Your task to perform on an android device: turn off improve location accuracy Image 0: 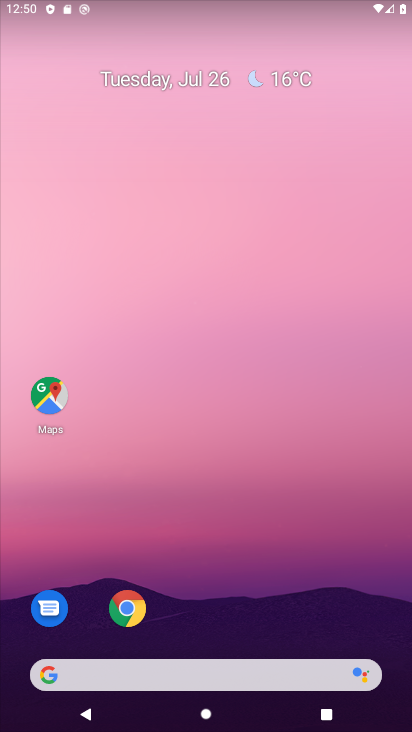
Step 0: drag from (264, 641) to (246, 93)
Your task to perform on an android device: turn off improve location accuracy Image 1: 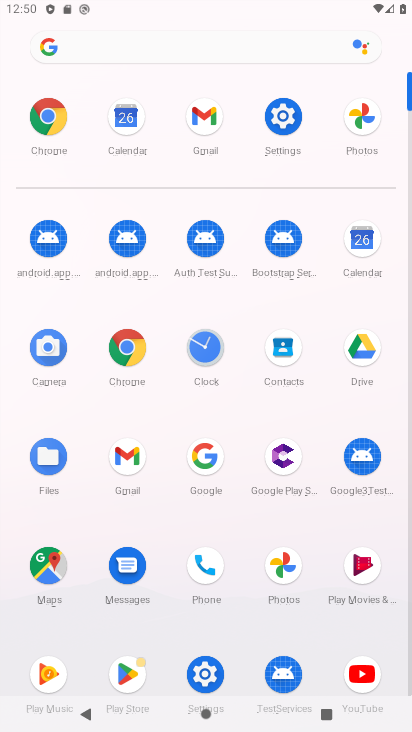
Step 1: click (279, 148)
Your task to perform on an android device: turn off improve location accuracy Image 2: 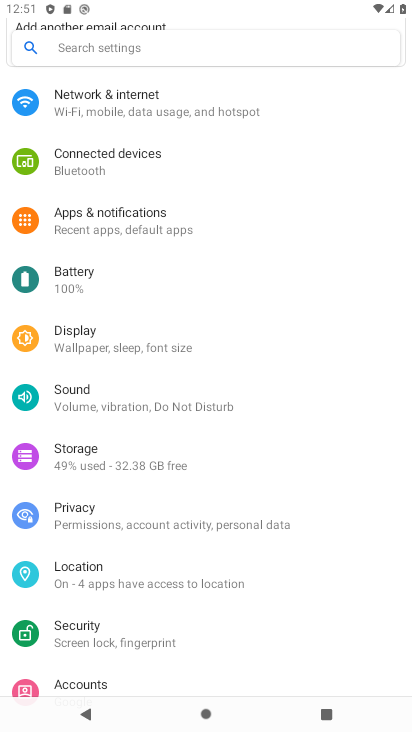
Step 2: task complete